Your task to perform on an android device: Check the weather Image 0: 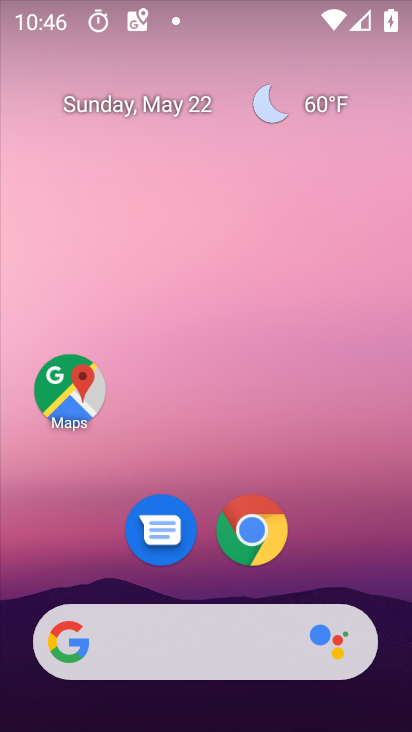
Step 0: click (316, 106)
Your task to perform on an android device: Check the weather Image 1: 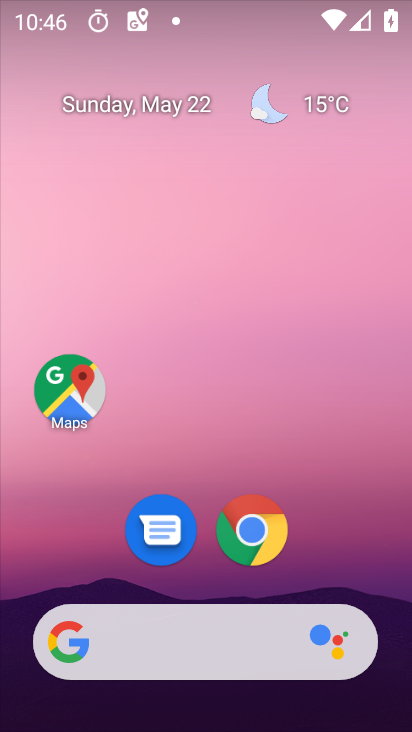
Step 1: click (316, 106)
Your task to perform on an android device: Check the weather Image 2: 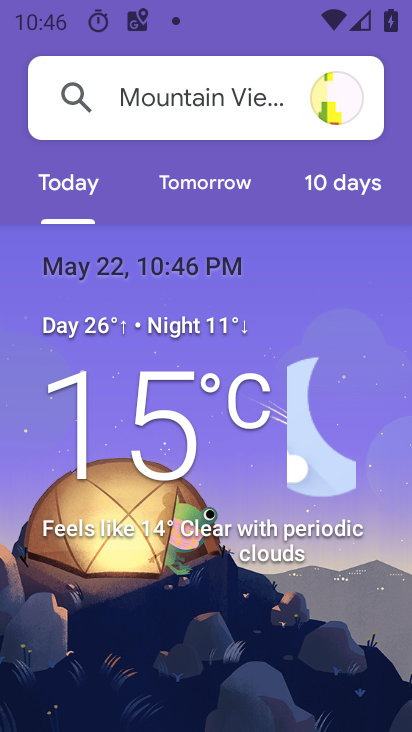
Step 2: task complete